Your task to perform on an android device: open device folders in google photos Image 0: 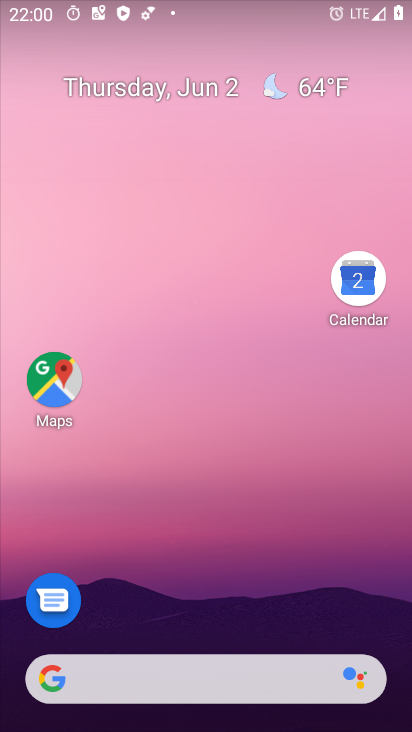
Step 0: drag from (224, 606) to (212, 67)
Your task to perform on an android device: open device folders in google photos Image 1: 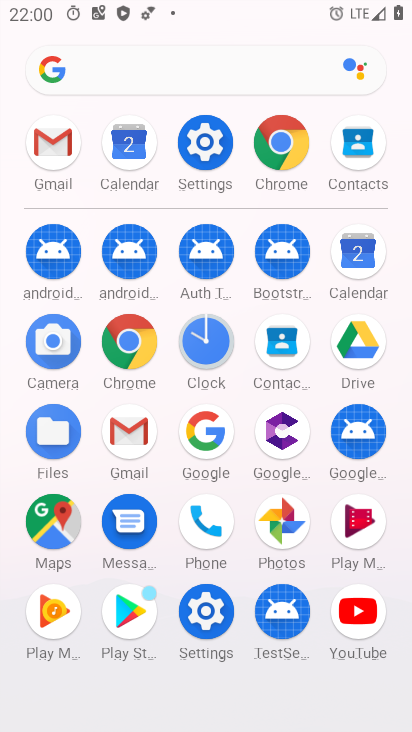
Step 1: click (284, 527)
Your task to perform on an android device: open device folders in google photos Image 2: 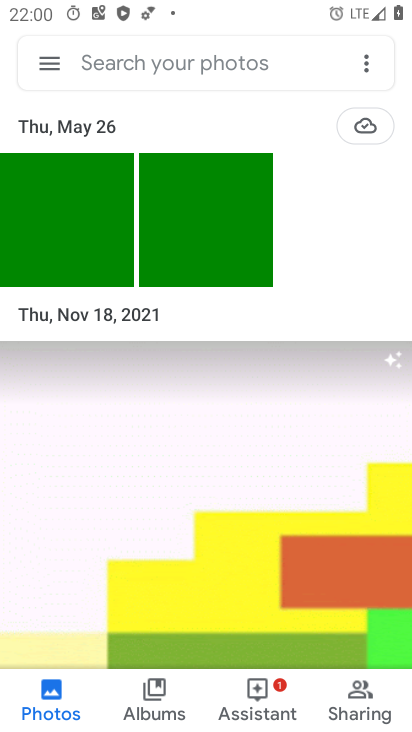
Step 2: click (46, 65)
Your task to perform on an android device: open device folders in google photos Image 3: 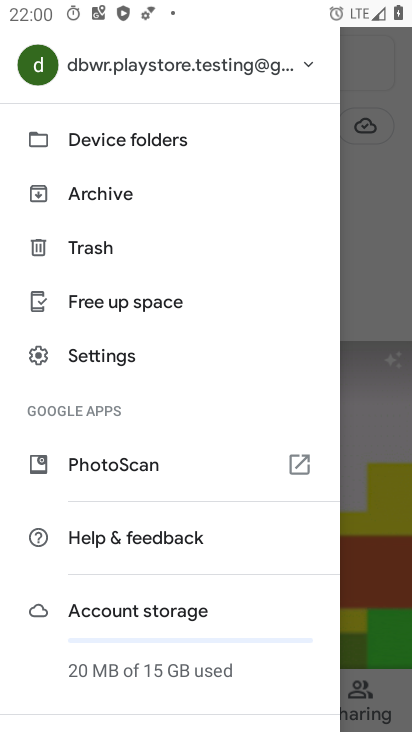
Step 3: click (86, 128)
Your task to perform on an android device: open device folders in google photos Image 4: 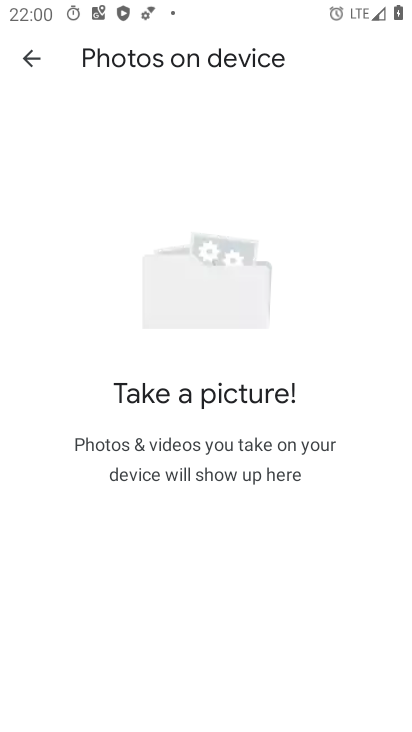
Step 4: task complete